Your task to perform on an android device: Go to Google maps Image 0: 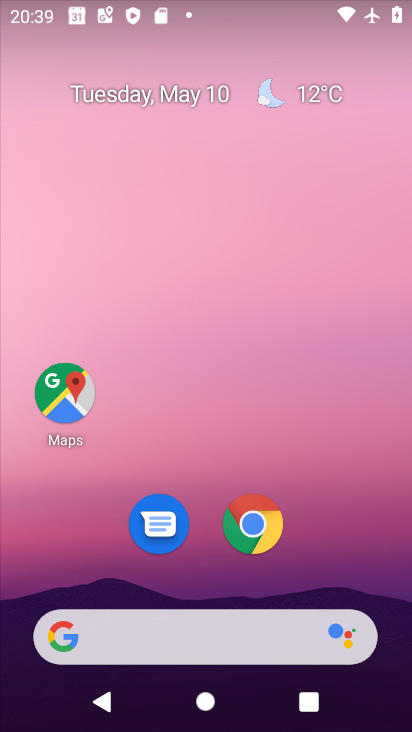
Step 0: click (64, 394)
Your task to perform on an android device: Go to Google maps Image 1: 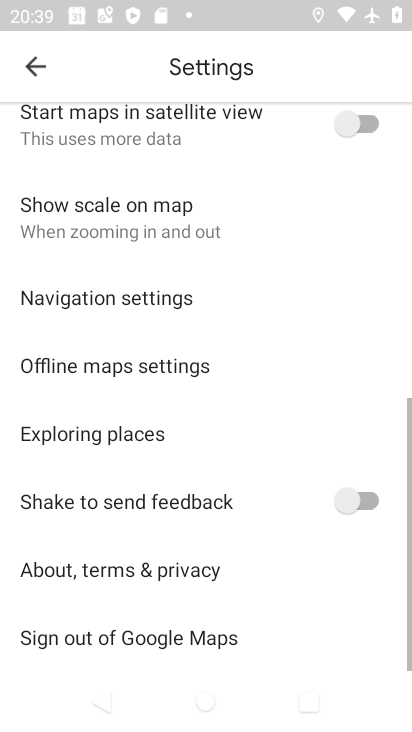
Step 1: click (37, 58)
Your task to perform on an android device: Go to Google maps Image 2: 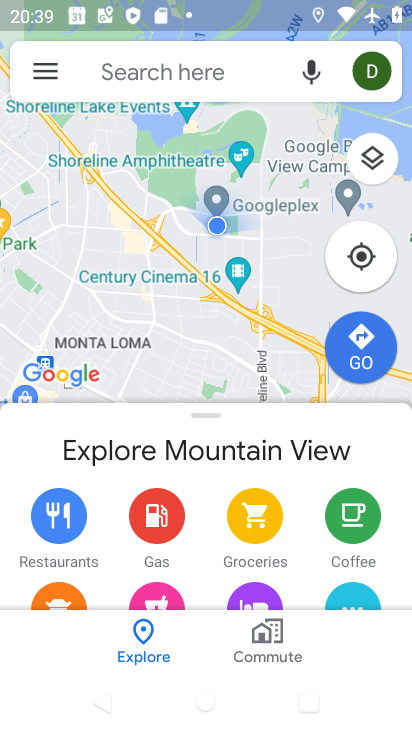
Step 2: task complete